Your task to perform on an android device: Turn on the flashlight Image 0: 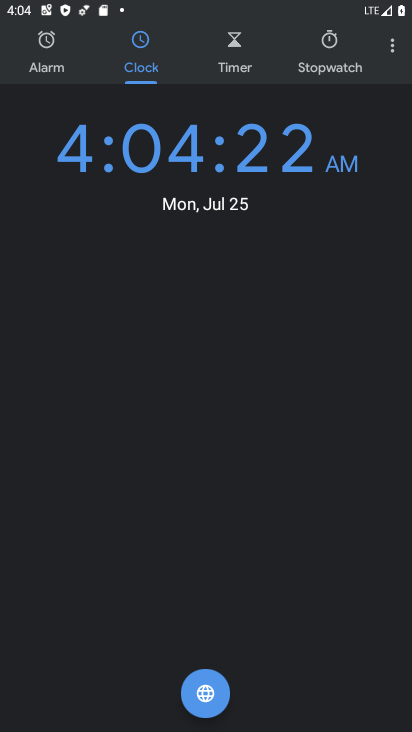
Step 0: press home button
Your task to perform on an android device: Turn on the flashlight Image 1: 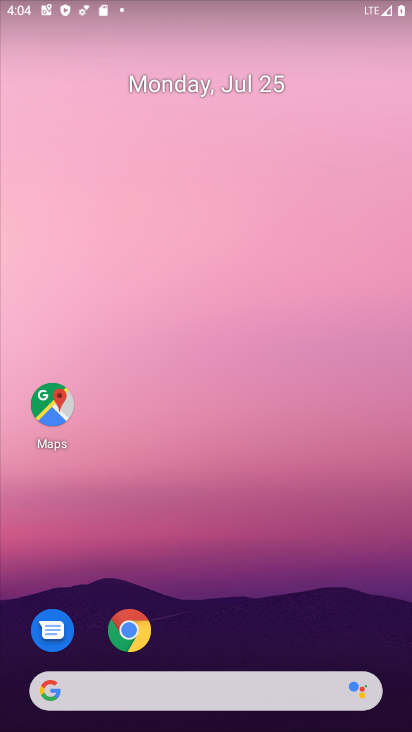
Step 1: drag from (192, 4) to (210, 327)
Your task to perform on an android device: Turn on the flashlight Image 2: 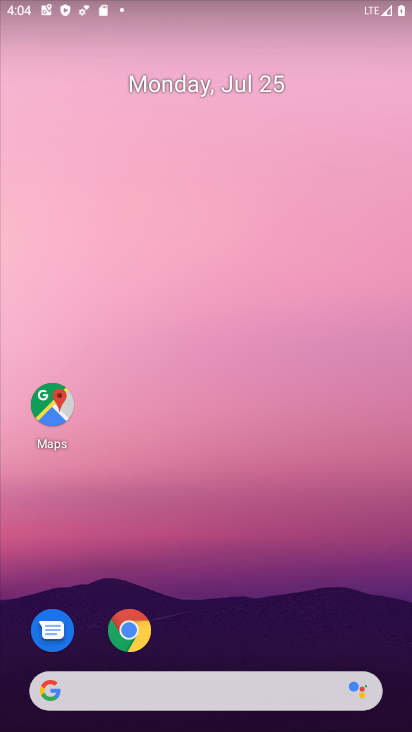
Step 2: drag from (170, 7) to (302, 550)
Your task to perform on an android device: Turn on the flashlight Image 3: 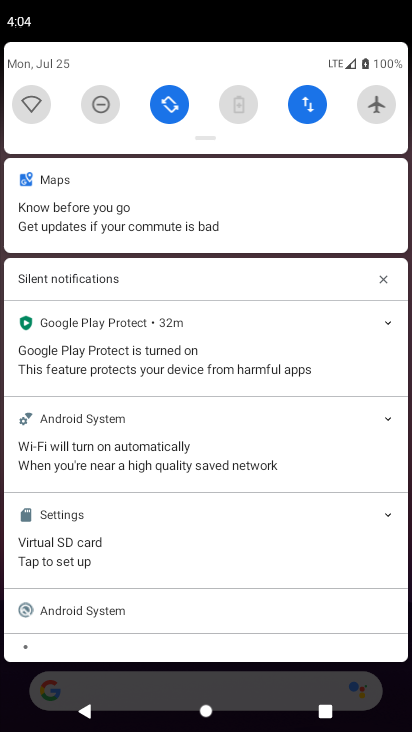
Step 3: drag from (204, 117) to (280, 682)
Your task to perform on an android device: Turn on the flashlight Image 4: 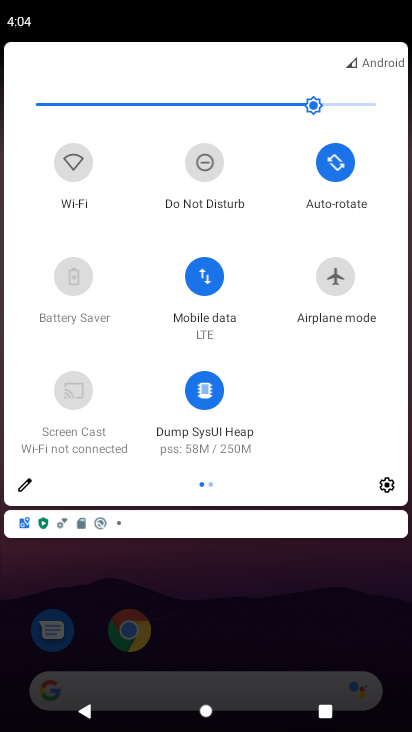
Step 4: click (29, 486)
Your task to perform on an android device: Turn on the flashlight Image 5: 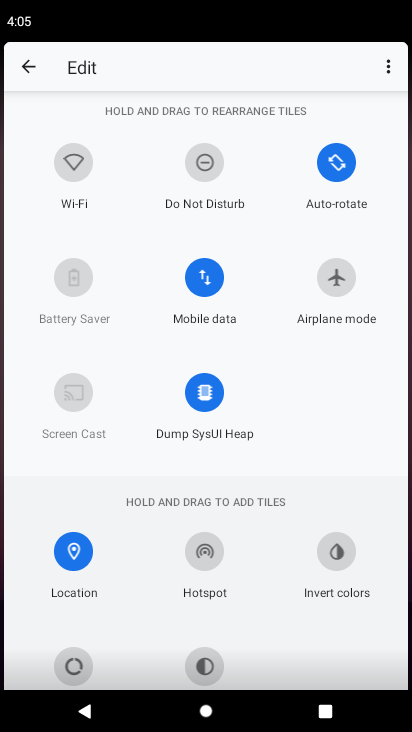
Step 5: task complete